Your task to perform on an android device: add a contact in the contacts app Image 0: 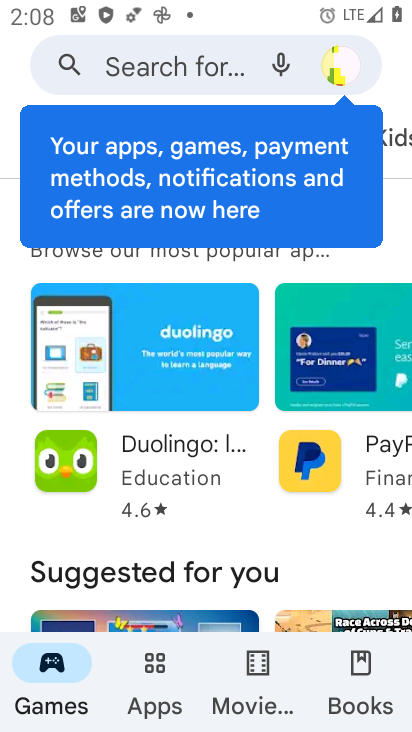
Step 0: press home button
Your task to perform on an android device: add a contact in the contacts app Image 1: 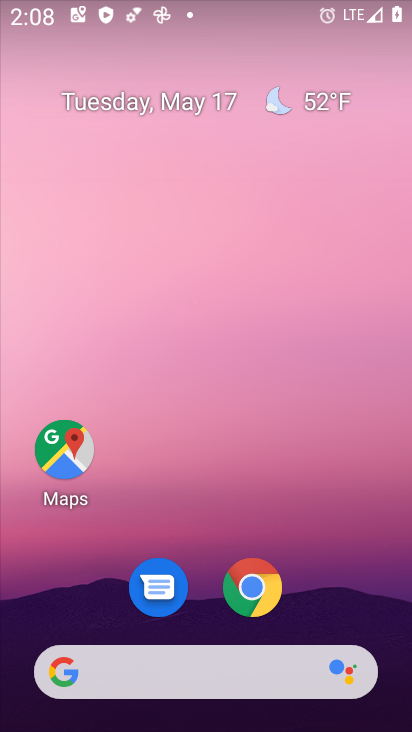
Step 1: drag from (350, 583) to (136, 46)
Your task to perform on an android device: add a contact in the contacts app Image 2: 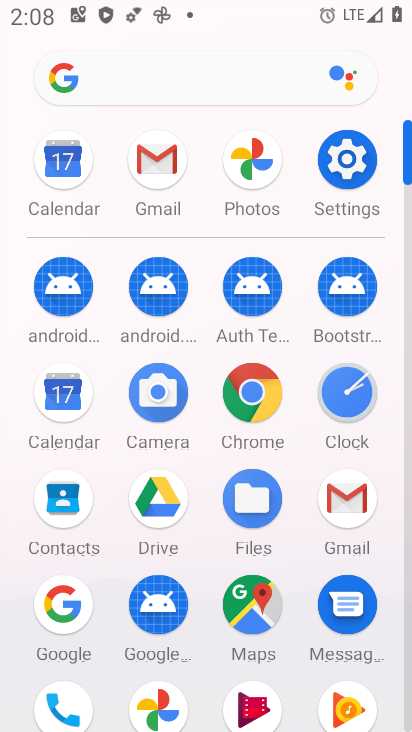
Step 2: click (37, 539)
Your task to perform on an android device: add a contact in the contacts app Image 3: 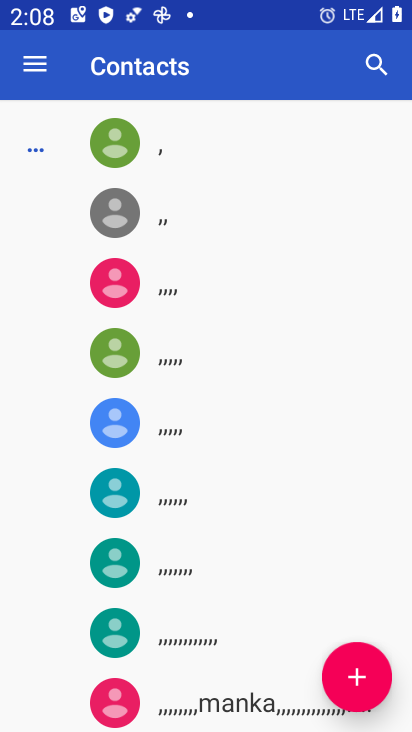
Step 3: click (360, 680)
Your task to perform on an android device: add a contact in the contacts app Image 4: 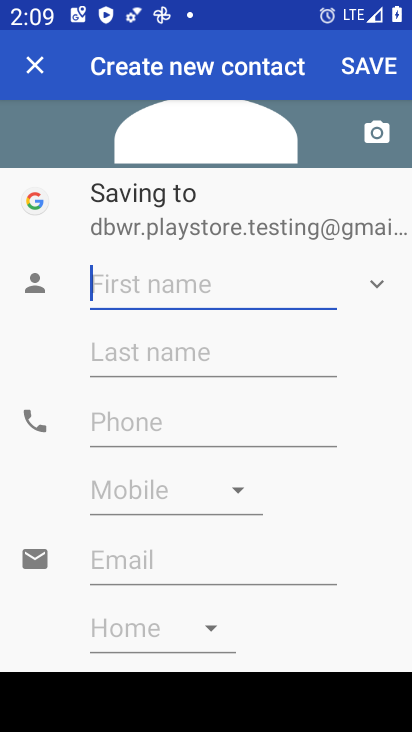
Step 4: type "sdfdsdfs"
Your task to perform on an android device: add a contact in the contacts app Image 5: 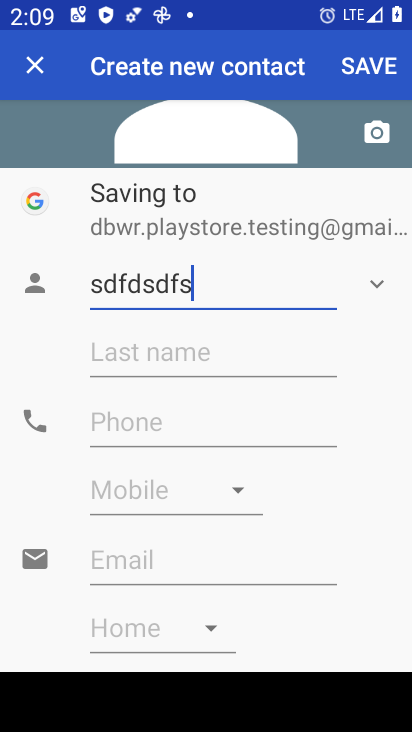
Step 5: click (191, 348)
Your task to perform on an android device: add a contact in the contacts app Image 6: 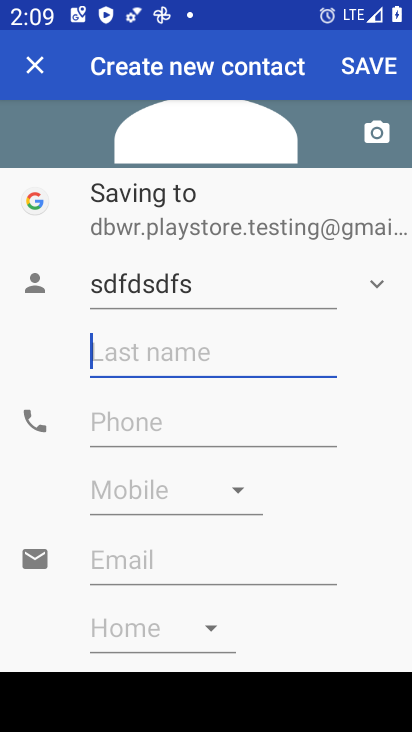
Step 6: type "fdsfewgf"
Your task to perform on an android device: add a contact in the contacts app Image 7: 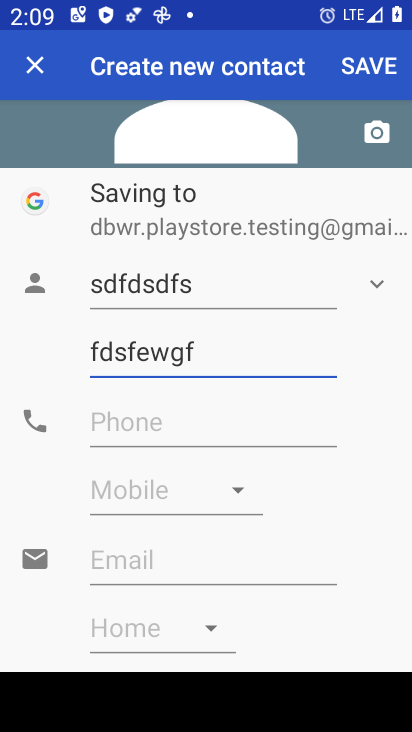
Step 7: click (248, 429)
Your task to perform on an android device: add a contact in the contacts app Image 8: 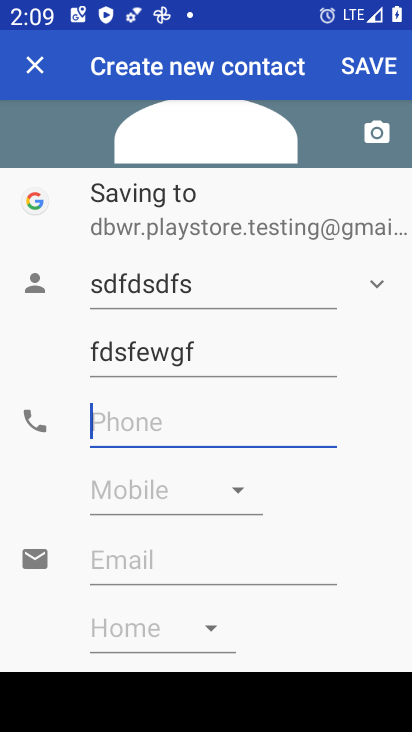
Step 8: type "212432532"
Your task to perform on an android device: add a contact in the contacts app Image 9: 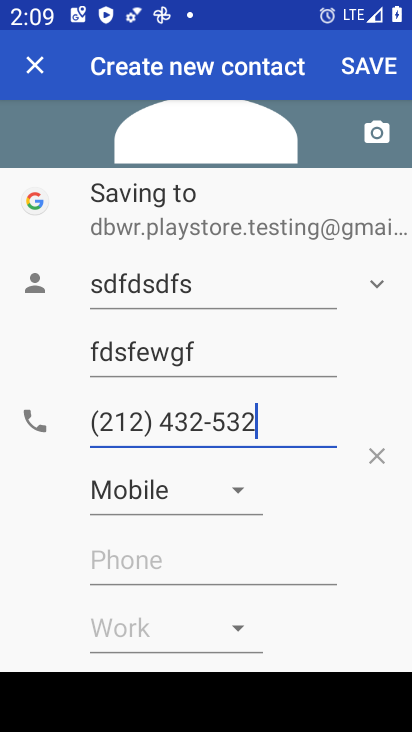
Step 9: click (352, 78)
Your task to perform on an android device: add a contact in the contacts app Image 10: 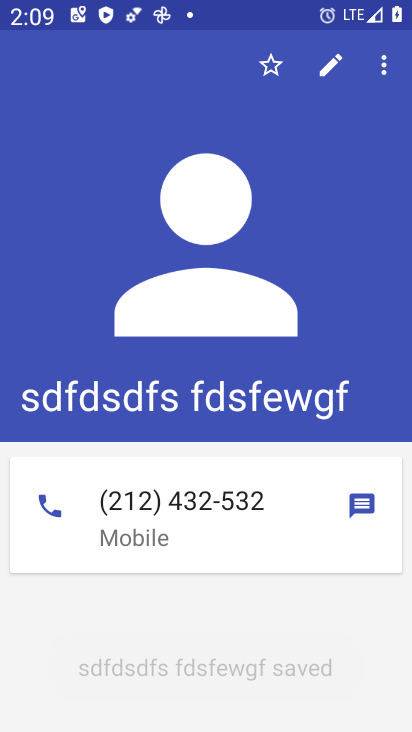
Step 10: task complete